Your task to perform on an android device: Open battery settings Image 0: 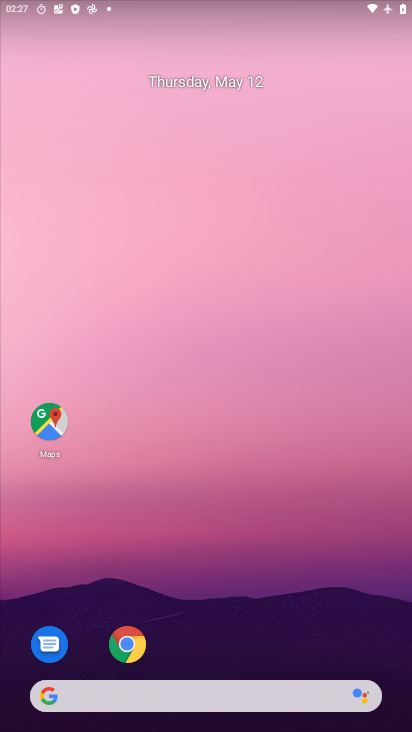
Step 0: drag from (247, 586) to (207, 106)
Your task to perform on an android device: Open battery settings Image 1: 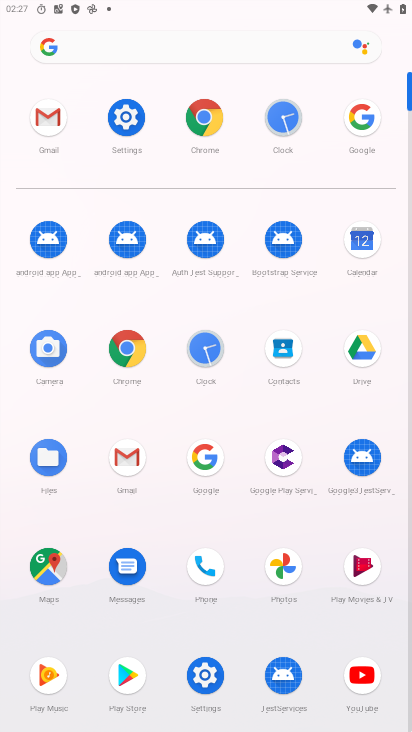
Step 1: click (210, 669)
Your task to perform on an android device: Open battery settings Image 2: 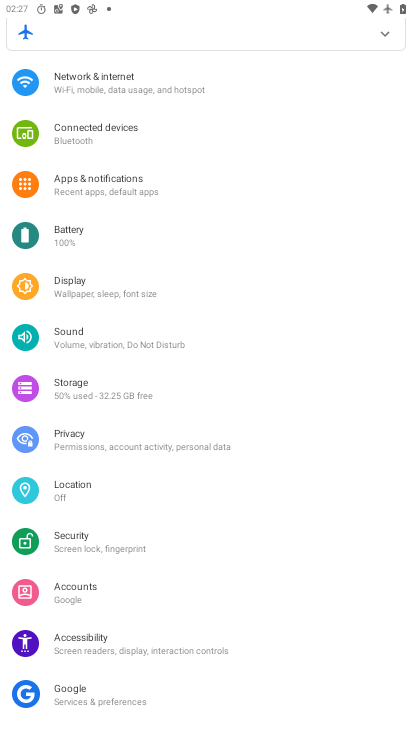
Step 2: click (104, 240)
Your task to perform on an android device: Open battery settings Image 3: 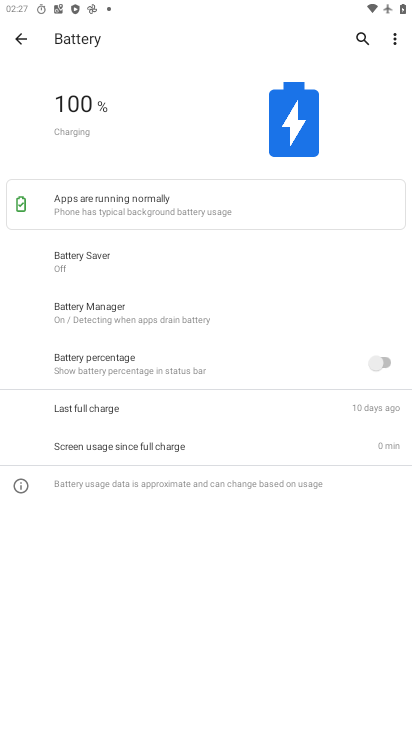
Step 3: task complete